Your task to perform on an android device: allow notifications from all sites in the chrome app Image 0: 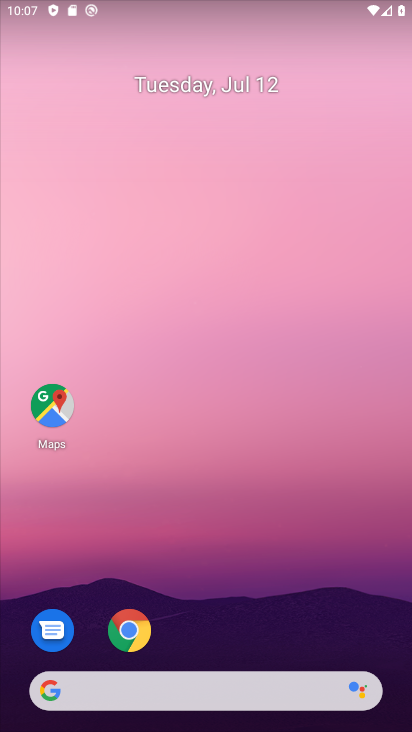
Step 0: drag from (241, 628) to (258, 92)
Your task to perform on an android device: allow notifications from all sites in the chrome app Image 1: 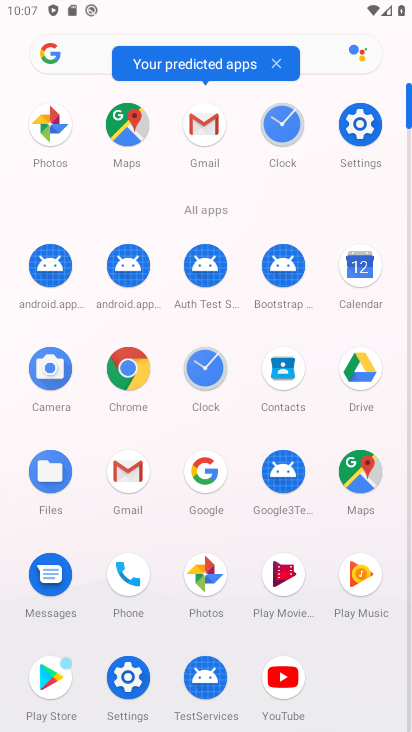
Step 1: click (129, 369)
Your task to perform on an android device: allow notifications from all sites in the chrome app Image 2: 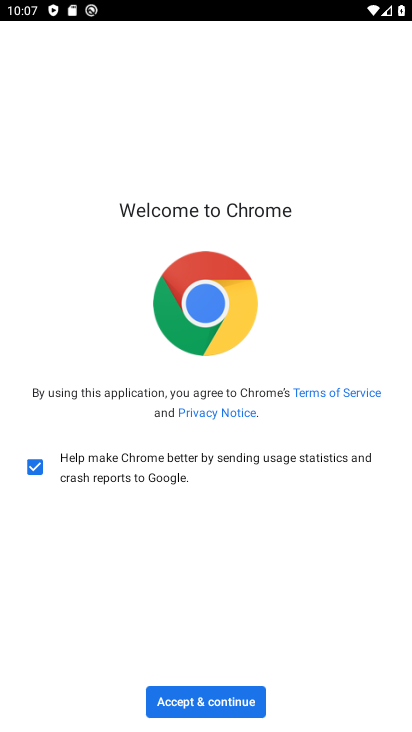
Step 2: click (207, 694)
Your task to perform on an android device: allow notifications from all sites in the chrome app Image 3: 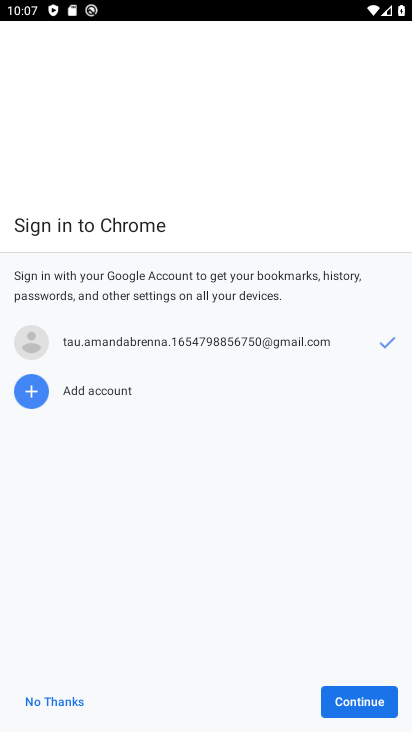
Step 3: click (354, 701)
Your task to perform on an android device: allow notifications from all sites in the chrome app Image 4: 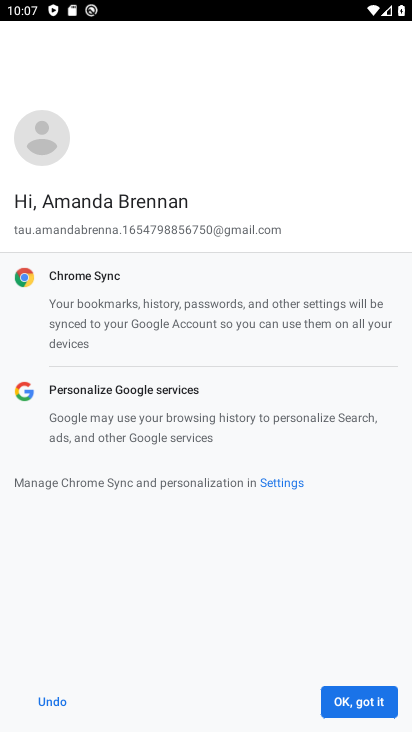
Step 4: click (354, 701)
Your task to perform on an android device: allow notifications from all sites in the chrome app Image 5: 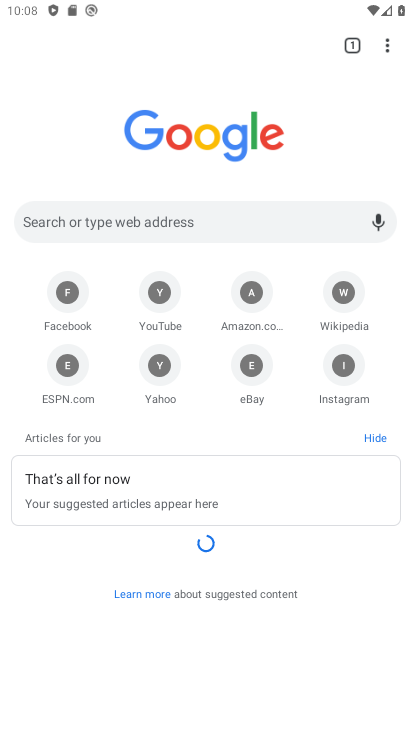
Step 5: click (377, 53)
Your task to perform on an android device: allow notifications from all sites in the chrome app Image 6: 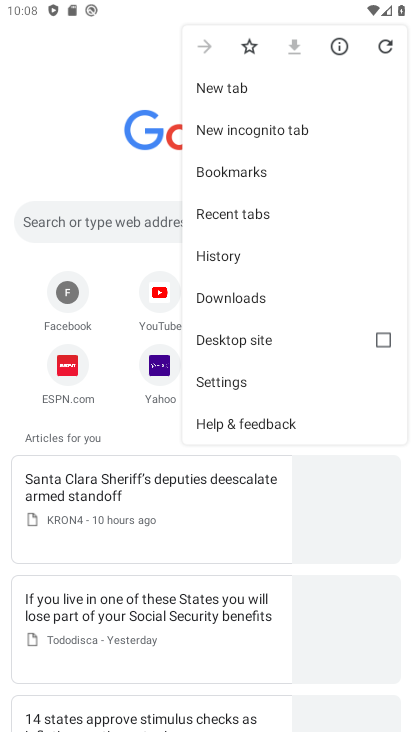
Step 6: click (225, 376)
Your task to perform on an android device: allow notifications from all sites in the chrome app Image 7: 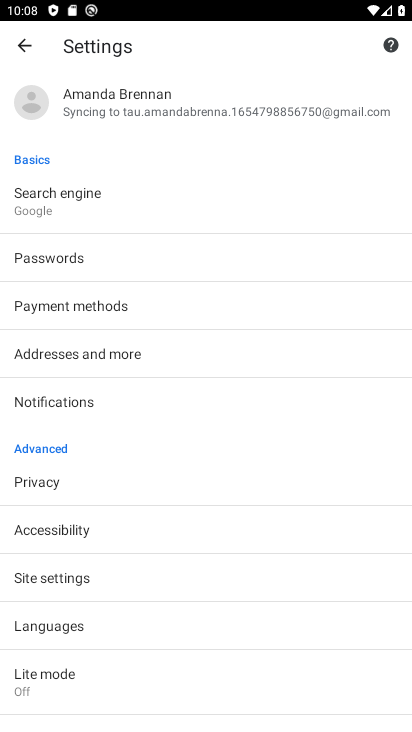
Step 7: click (94, 585)
Your task to perform on an android device: allow notifications from all sites in the chrome app Image 8: 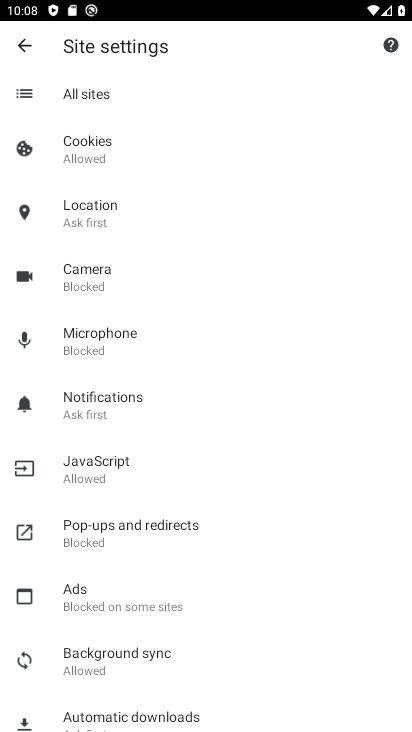
Step 8: click (127, 413)
Your task to perform on an android device: allow notifications from all sites in the chrome app Image 9: 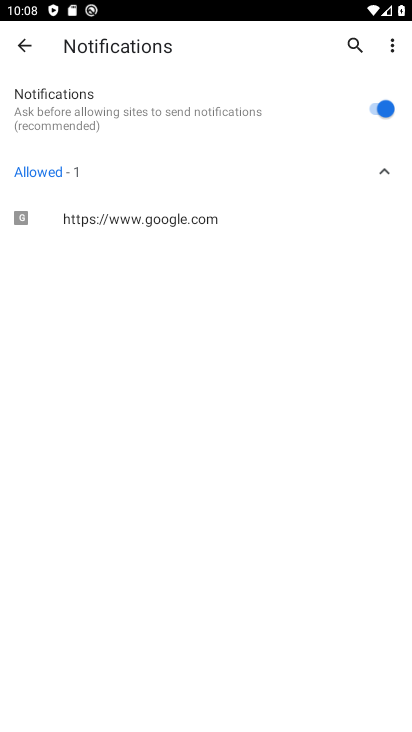
Step 9: task complete